Your task to perform on an android device: turn on priority inbox in the gmail app Image 0: 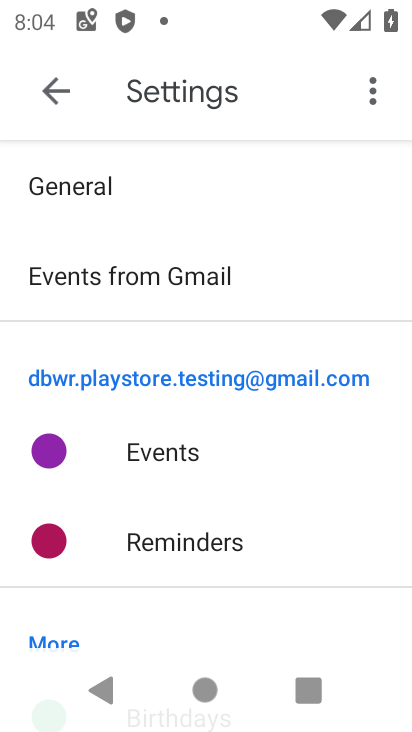
Step 0: press home button
Your task to perform on an android device: turn on priority inbox in the gmail app Image 1: 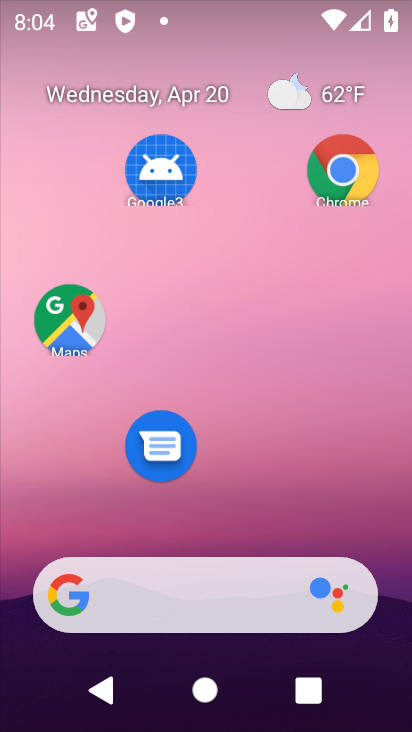
Step 1: drag from (227, 516) to (346, 75)
Your task to perform on an android device: turn on priority inbox in the gmail app Image 2: 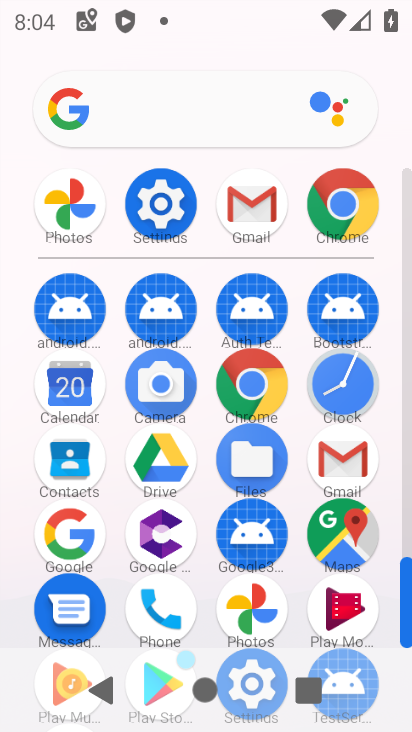
Step 2: click (244, 208)
Your task to perform on an android device: turn on priority inbox in the gmail app Image 3: 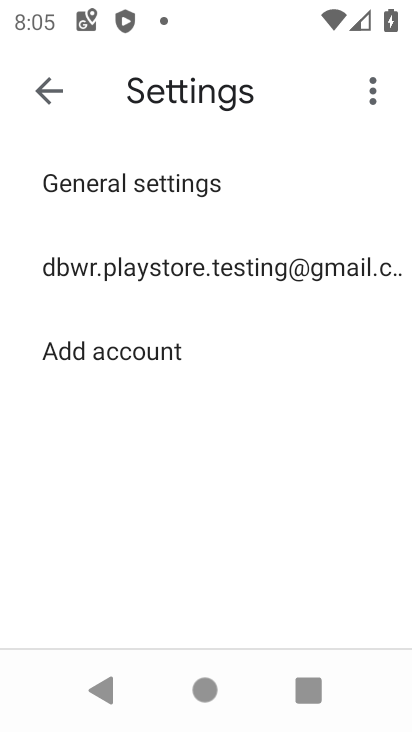
Step 3: click (136, 263)
Your task to perform on an android device: turn on priority inbox in the gmail app Image 4: 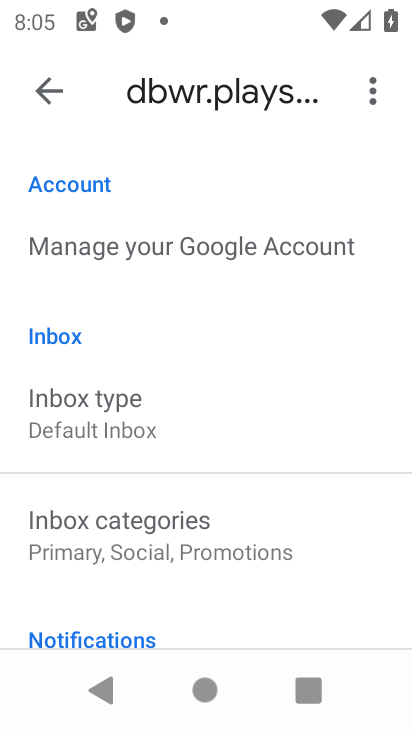
Step 4: click (83, 404)
Your task to perform on an android device: turn on priority inbox in the gmail app Image 5: 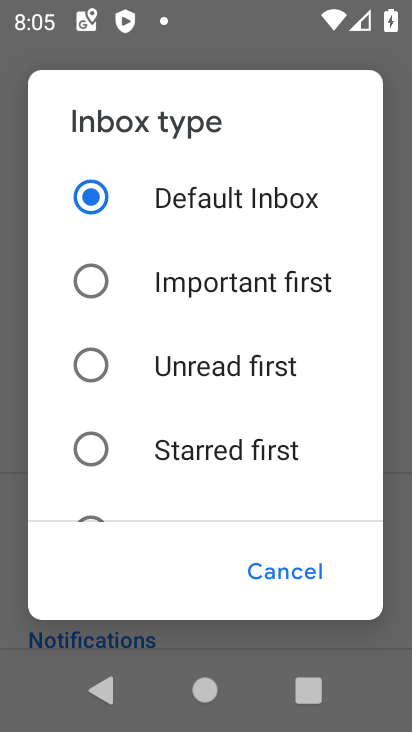
Step 5: drag from (132, 501) to (153, 282)
Your task to perform on an android device: turn on priority inbox in the gmail app Image 6: 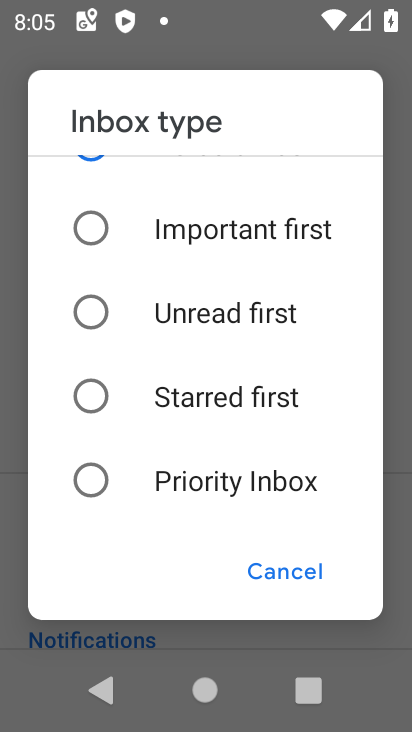
Step 6: click (86, 486)
Your task to perform on an android device: turn on priority inbox in the gmail app Image 7: 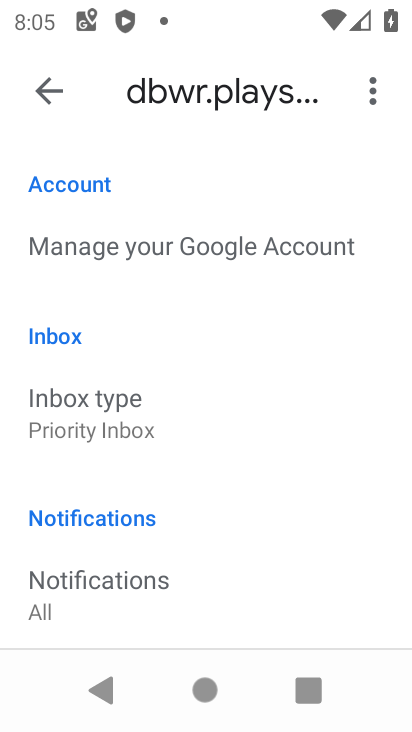
Step 7: task complete